Your task to perform on an android device: Go to internet settings Image 0: 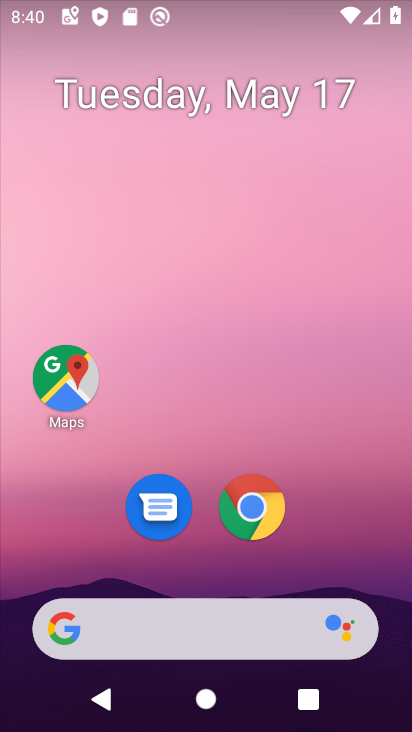
Step 0: drag from (356, 645) to (356, 267)
Your task to perform on an android device: Go to internet settings Image 1: 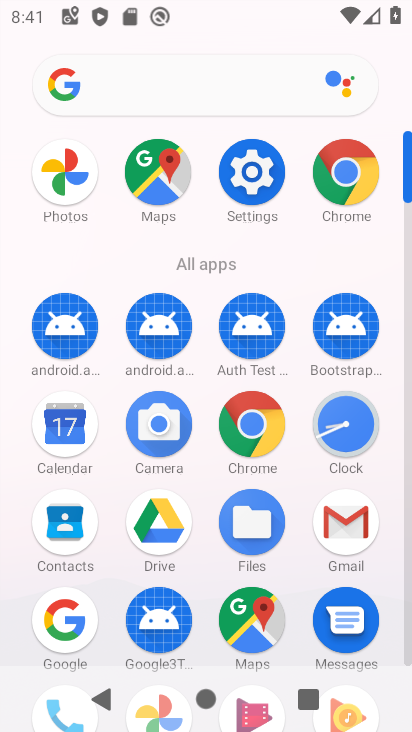
Step 1: click (231, 173)
Your task to perform on an android device: Go to internet settings Image 2: 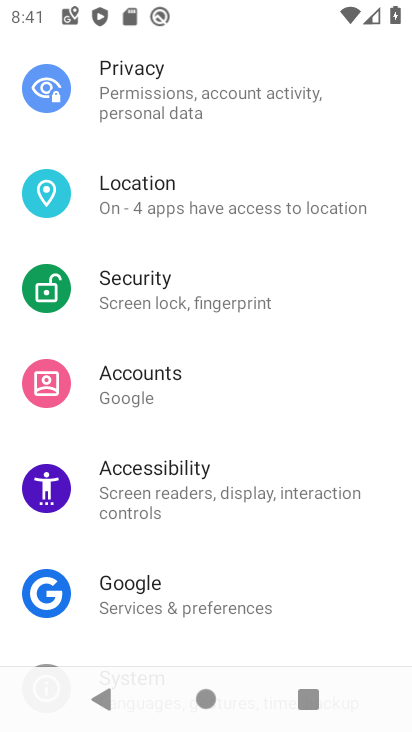
Step 2: drag from (266, 234) to (288, 637)
Your task to perform on an android device: Go to internet settings Image 3: 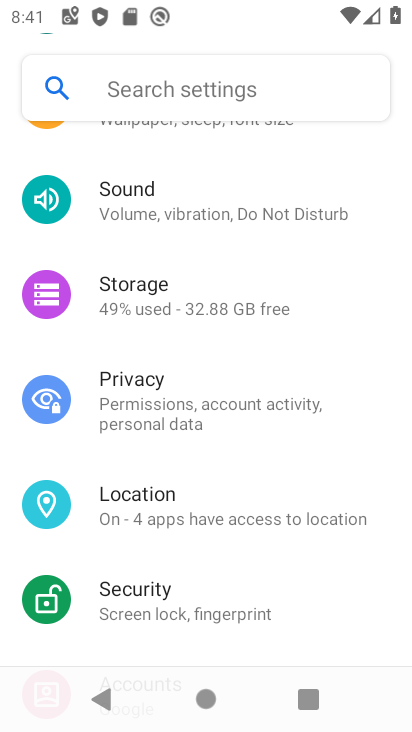
Step 3: drag from (243, 251) to (315, 671)
Your task to perform on an android device: Go to internet settings Image 4: 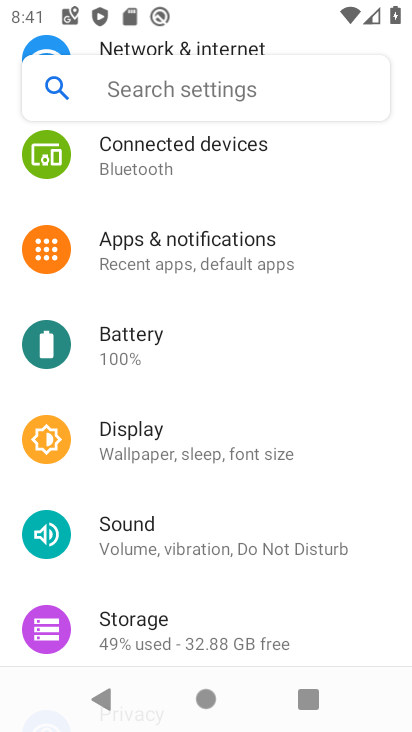
Step 4: drag from (231, 260) to (261, 630)
Your task to perform on an android device: Go to internet settings Image 5: 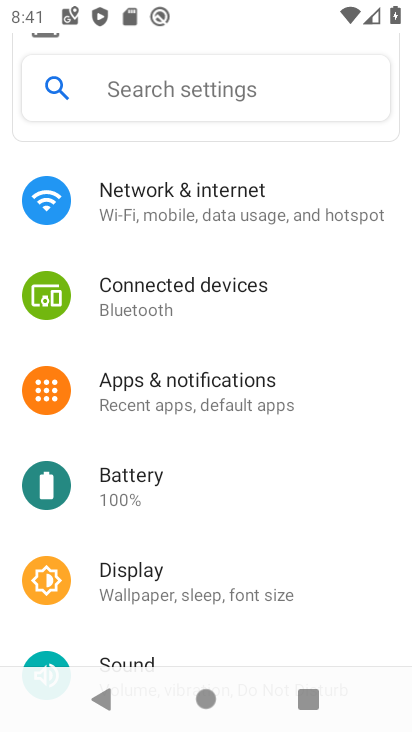
Step 5: click (223, 233)
Your task to perform on an android device: Go to internet settings Image 6: 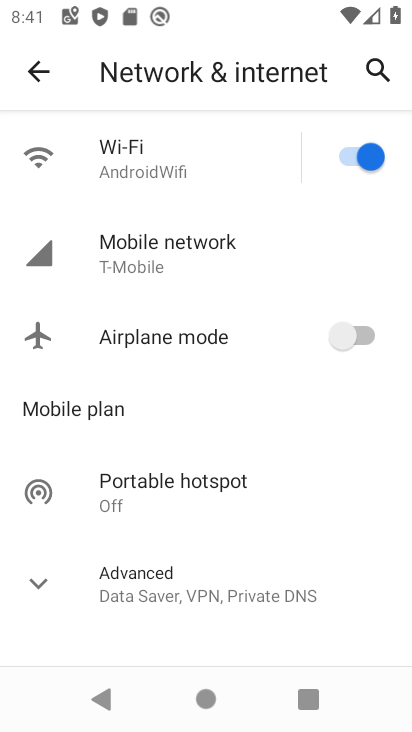
Step 6: task complete